Your task to perform on an android device: Open maps Image 0: 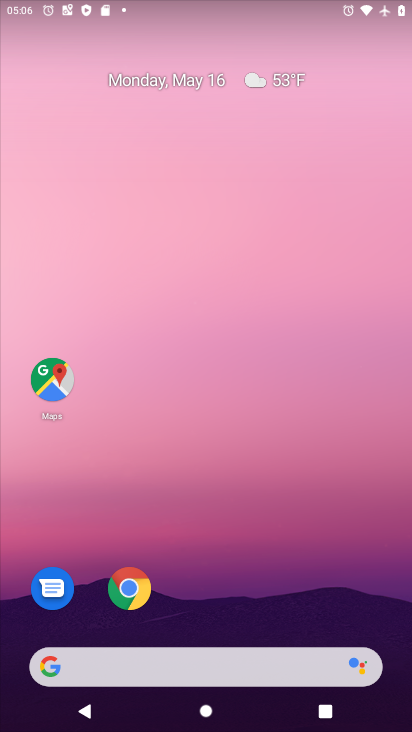
Step 0: drag from (287, 534) to (234, 15)
Your task to perform on an android device: Open maps Image 1: 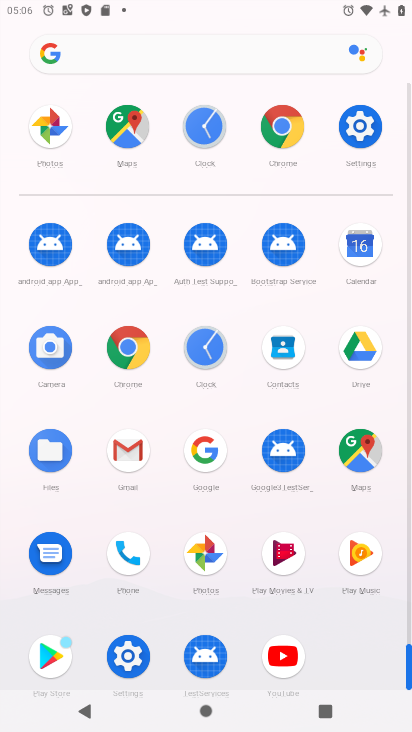
Step 1: click (366, 456)
Your task to perform on an android device: Open maps Image 2: 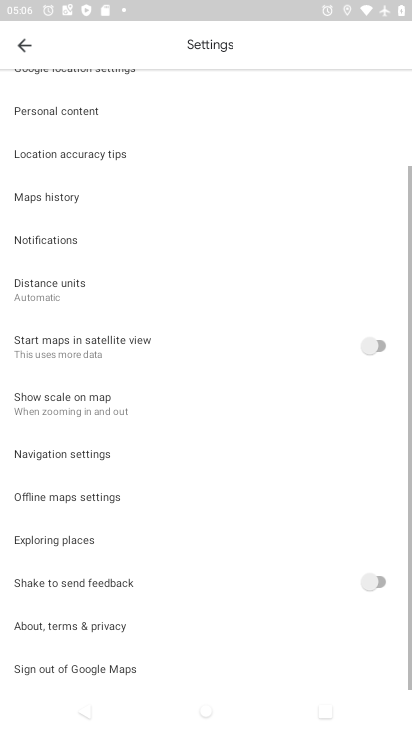
Step 2: click (29, 45)
Your task to perform on an android device: Open maps Image 3: 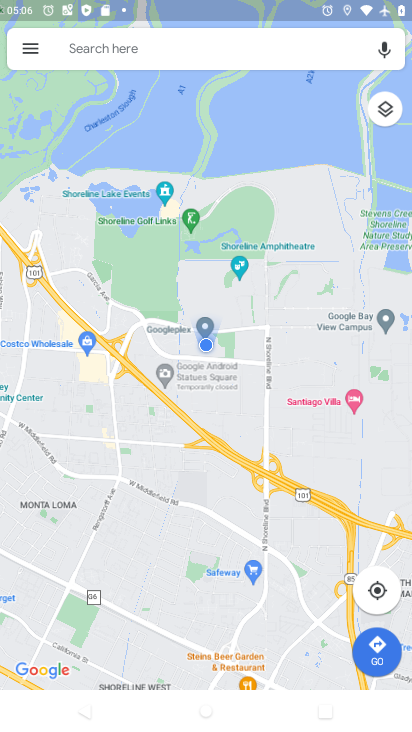
Step 3: task complete